Your task to perform on an android device: What's on my calendar tomorrow? Image 0: 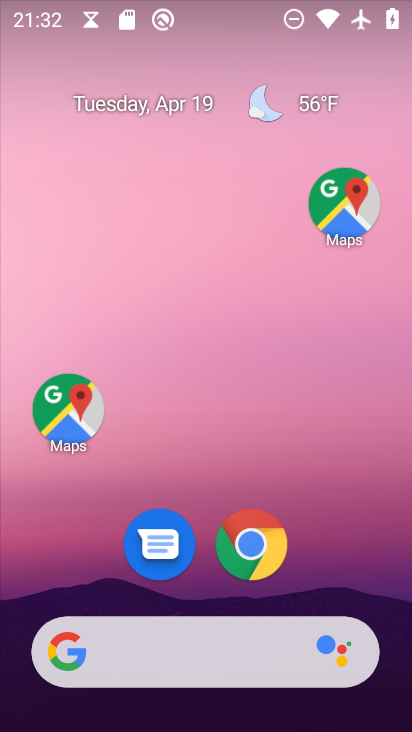
Step 0: drag from (196, 644) to (328, 7)
Your task to perform on an android device: What's on my calendar tomorrow? Image 1: 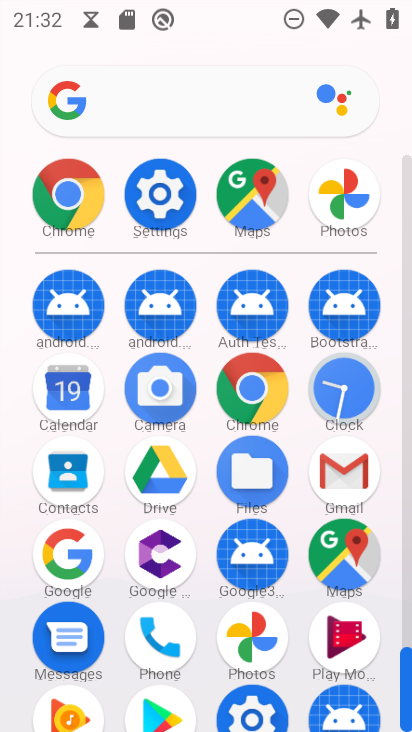
Step 1: click (69, 400)
Your task to perform on an android device: What's on my calendar tomorrow? Image 2: 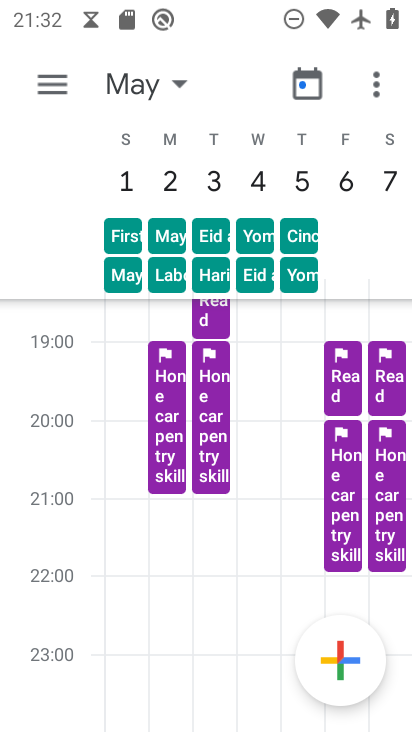
Step 2: click (115, 80)
Your task to perform on an android device: What's on my calendar tomorrow? Image 3: 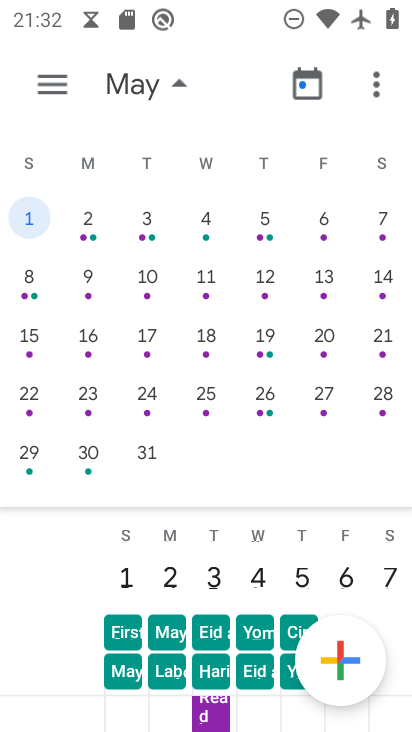
Step 3: drag from (38, 330) to (394, 384)
Your task to perform on an android device: What's on my calendar tomorrow? Image 4: 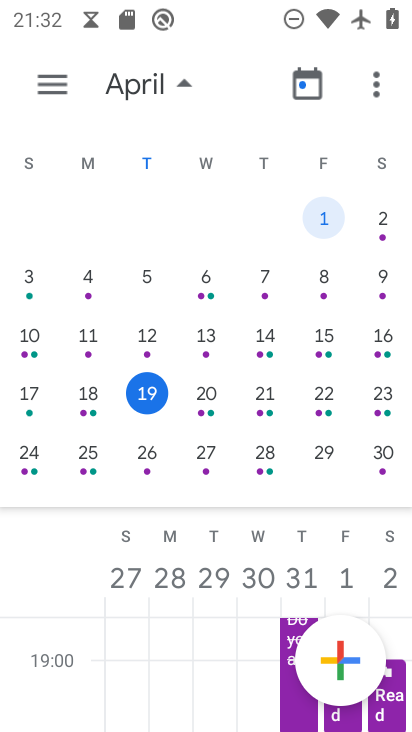
Step 4: click (208, 396)
Your task to perform on an android device: What's on my calendar tomorrow? Image 5: 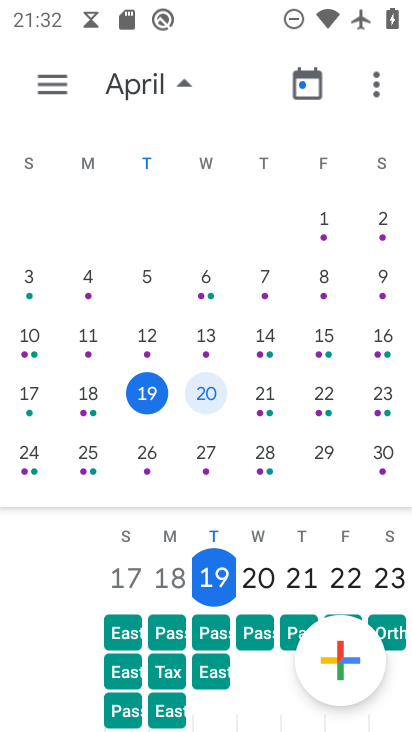
Step 5: click (61, 83)
Your task to perform on an android device: What's on my calendar tomorrow? Image 6: 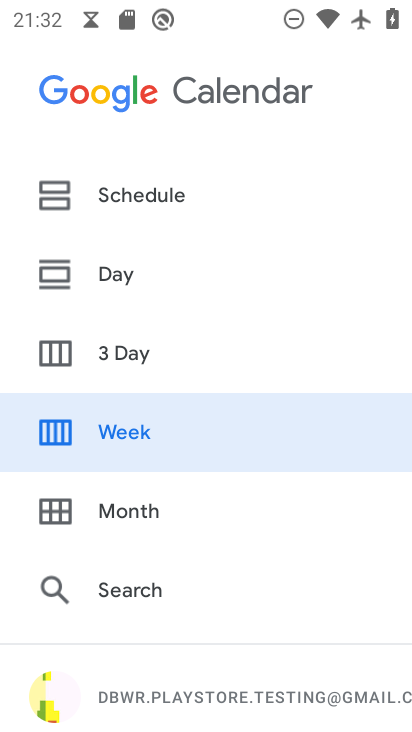
Step 6: click (124, 196)
Your task to perform on an android device: What's on my calendar tomorrow? Image 7: 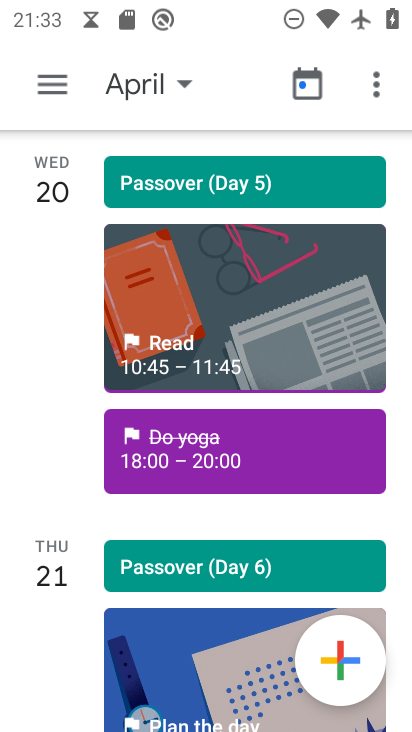
Step 7: task complete